Your task to perform on an android device: add a contact Image 0: 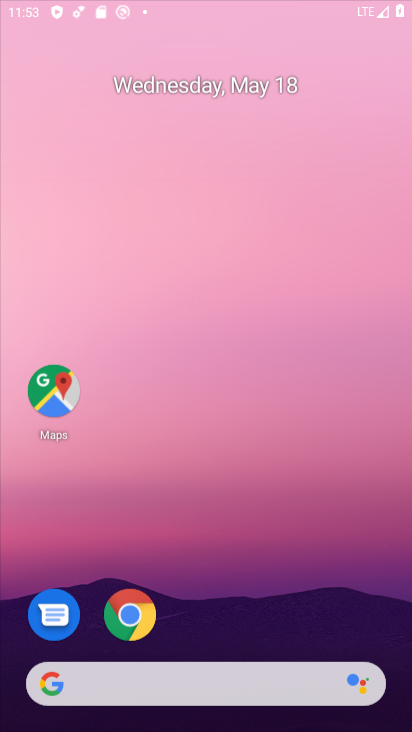
Step 0: drag from (232, 561) to (227, 24)
Your task to perform on an android device: add a contact Image 1: 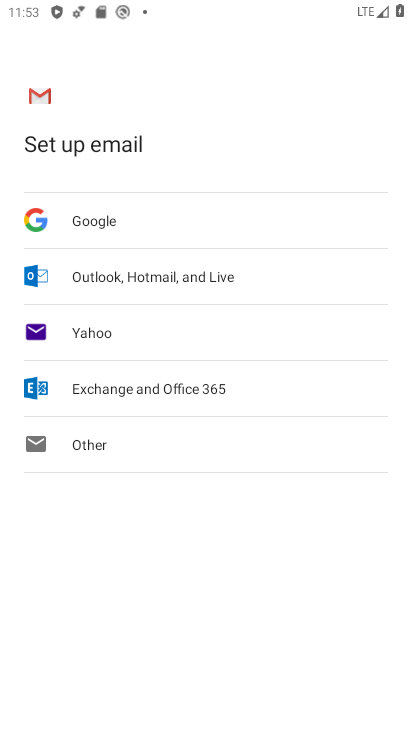
Step 1: press back button
Your task to perform on an android device: add a contact Image 2: 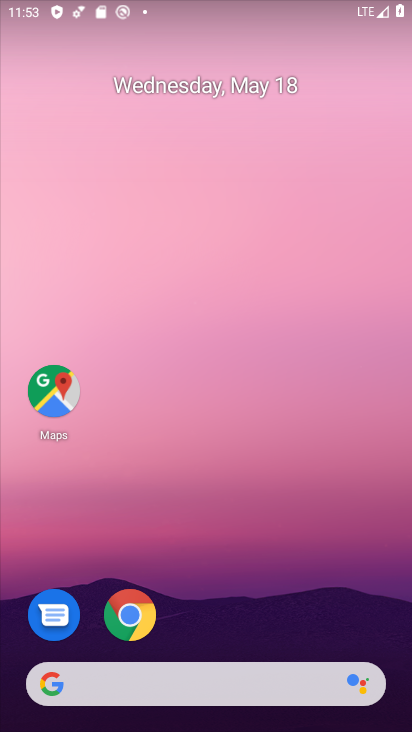
Step 2: drag from (277, 536) to (263, 55)
Your task to perform on an android device: add a contact Image 3: 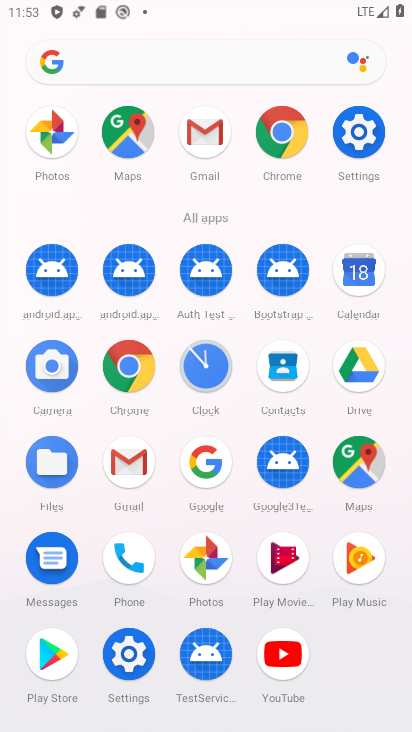
Step 3: drag from (13, 546) to (15, 239)
Your task to perform on an android device: add a contact Image 4: 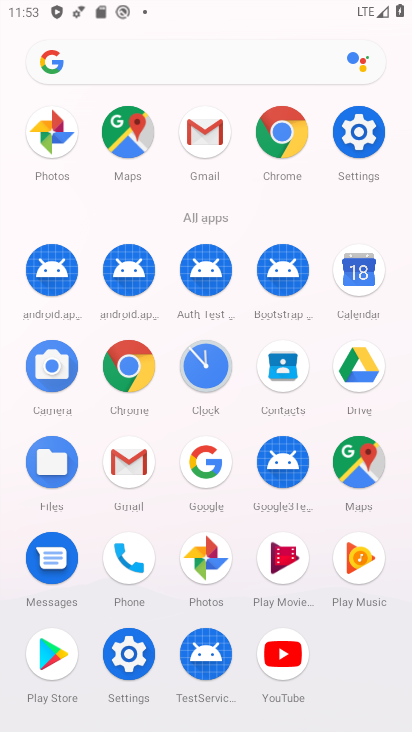
Step 4: click (283, 364)
Your task to perform on an android device: add a contact Image 5: 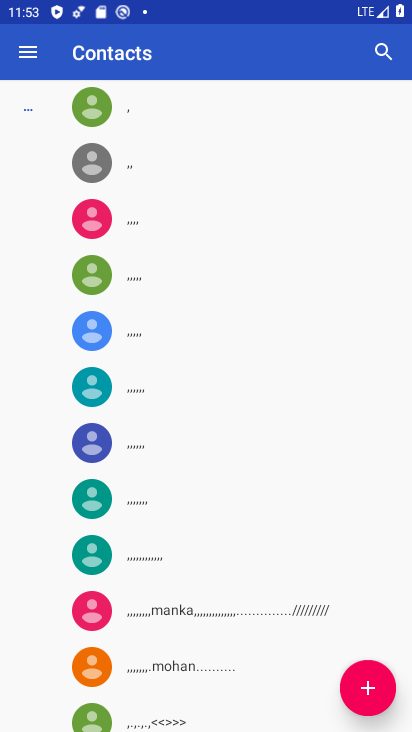
Step 5: click (356, 686)
Your task to perform on an android device: add a contact Image 6: 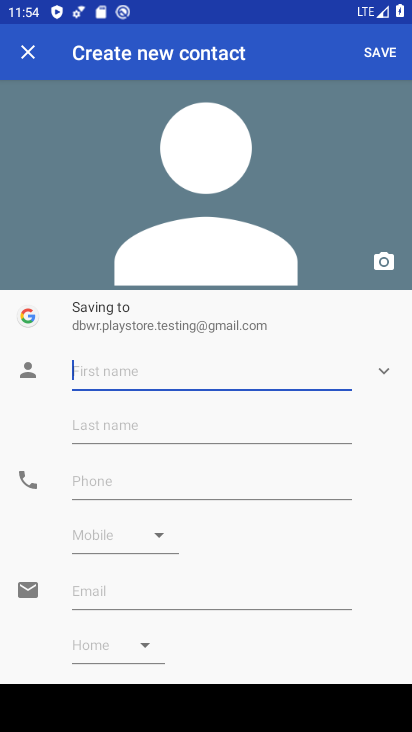
Step 6: type "SDFGH"
Your task to perform on an android device: add a contact Image 7: 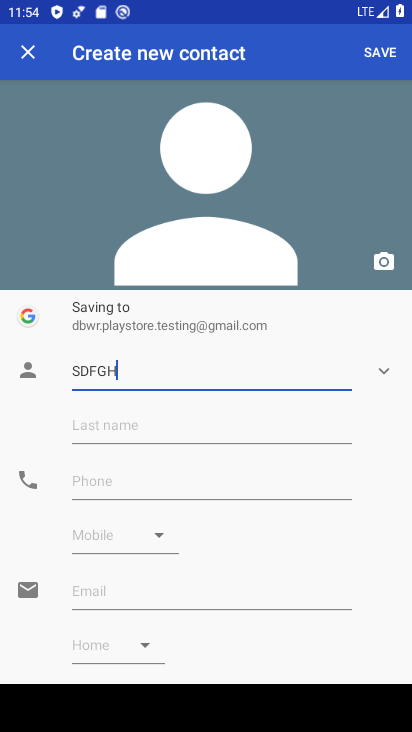
Step 7: type ""
Your task to perform on an android device: add a contact Image 8: 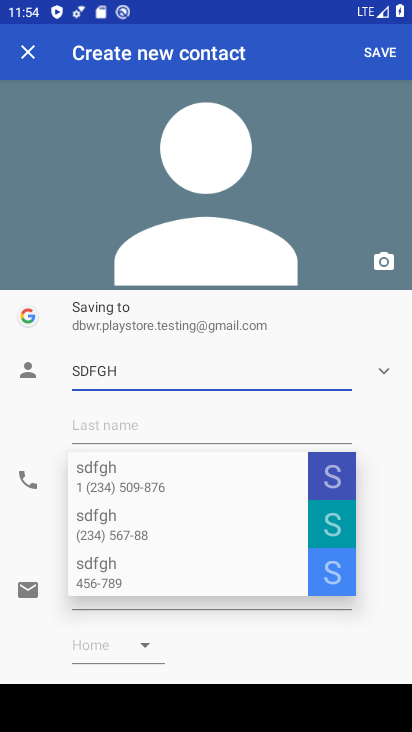
Step 8: click (95, 477)
Your task to perform on an android device: add a contact Image 9: 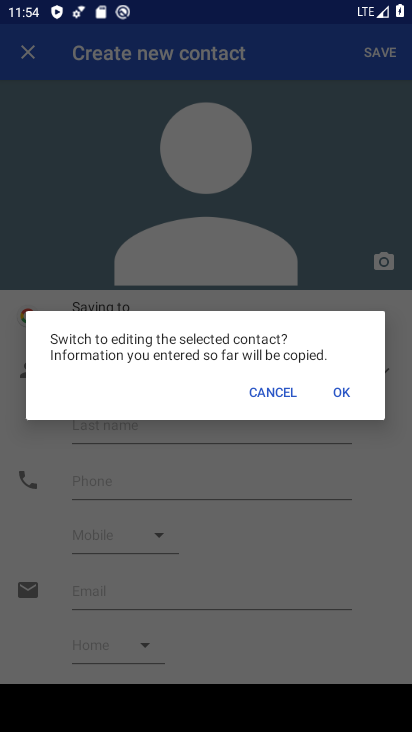
Step 9: click (343, 394)
Your task to perform on an android device: add a contact Image 10: 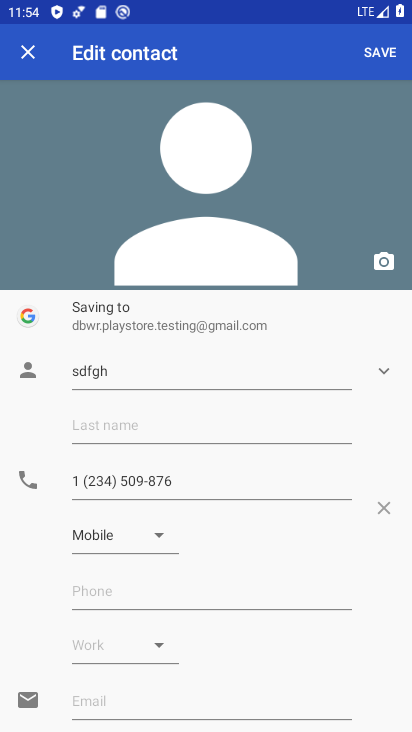
Step 10: click (363, 46)
Your task to perform on an android device: add a contact Image 11: 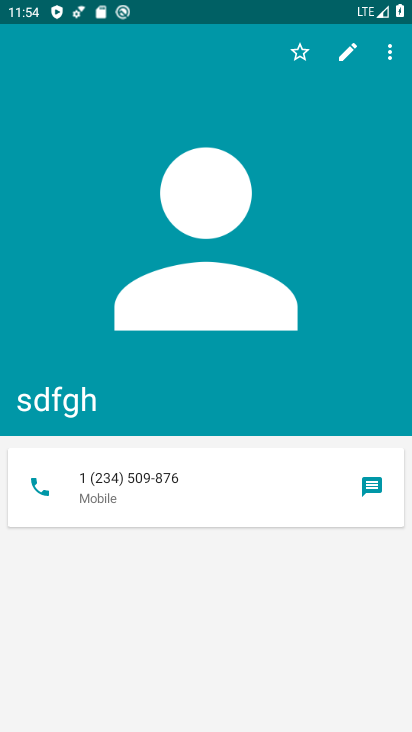
Step 11: task complete